Your task to perform on an android device: clear all cookies in the chrome app Image 0: 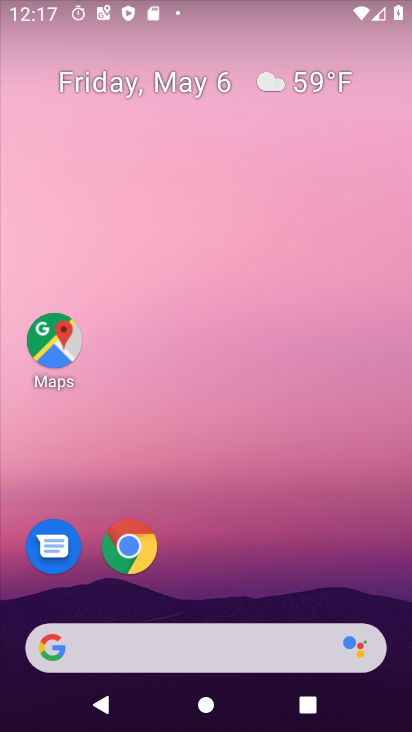
Step 0: click (127, 542)
Your task to perform on an android device: clear all cookies in the chrome app Image 1: 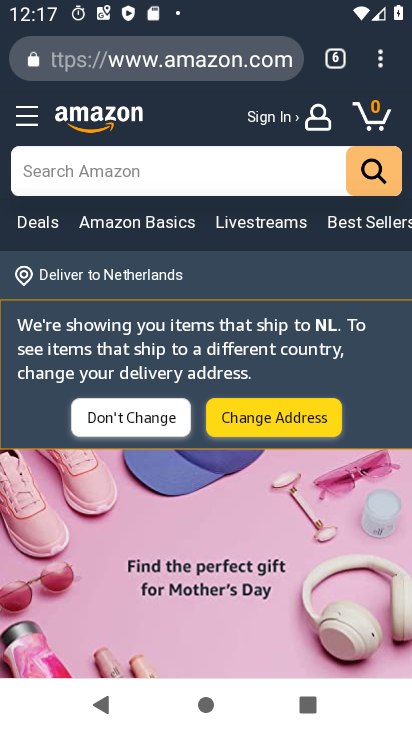
Step 1: click (385, 65)
Your task to perform on an android device: clear all cookies in the chrome app Image 2: 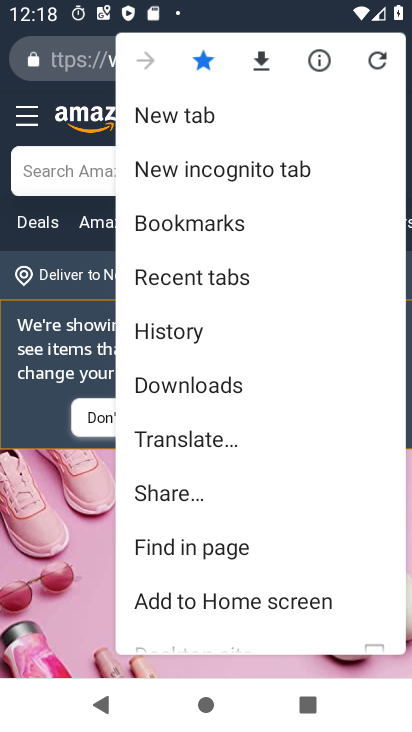
Step 2: click (185, 329)
Your task to perform on an android device: clear all cookies in the chrome app Image 3: 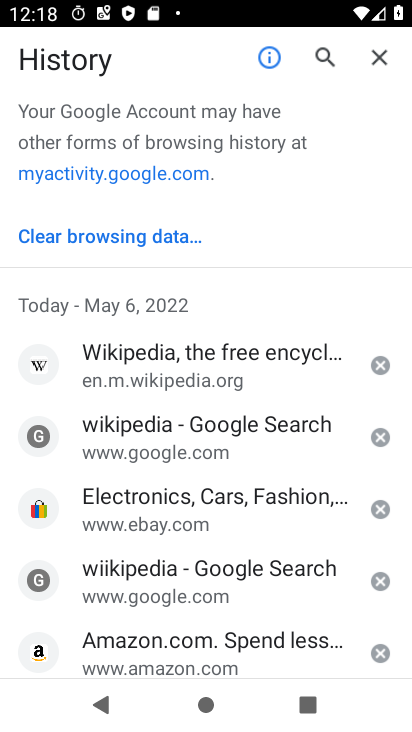
Step 3: click (139, 234)
Your task to perform on an android device: clear all cookies in the chrome app Image 4: 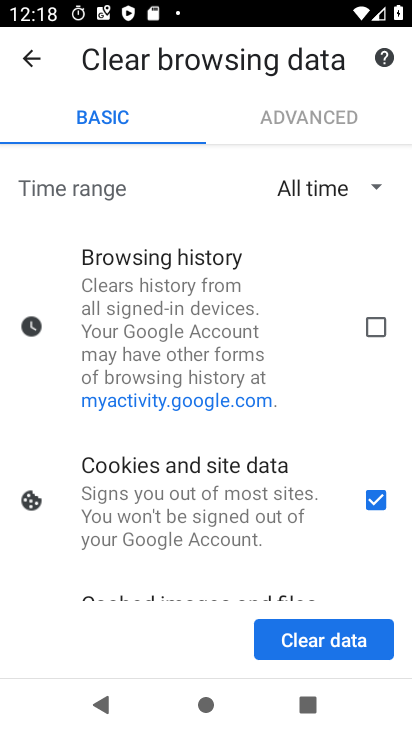
Step 4: drag from (310, 539) to (298, 313)
Your task to perform on an android device: clear all cookies in the chrome app Image 5: 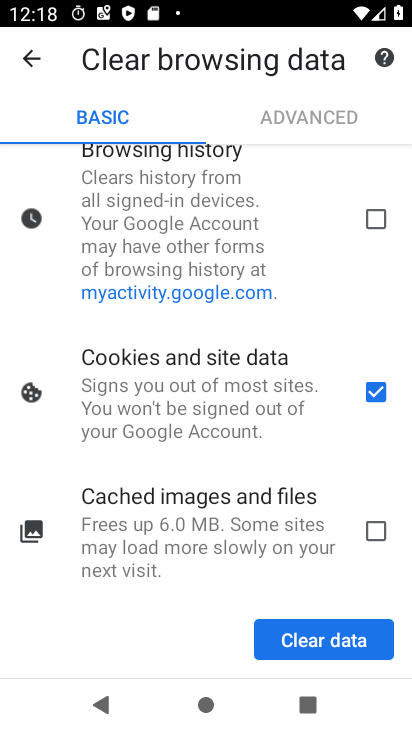
Step 5: click (344, 636)
Your task to perform on an android device: clear all cookies in the chrome app Image 6: 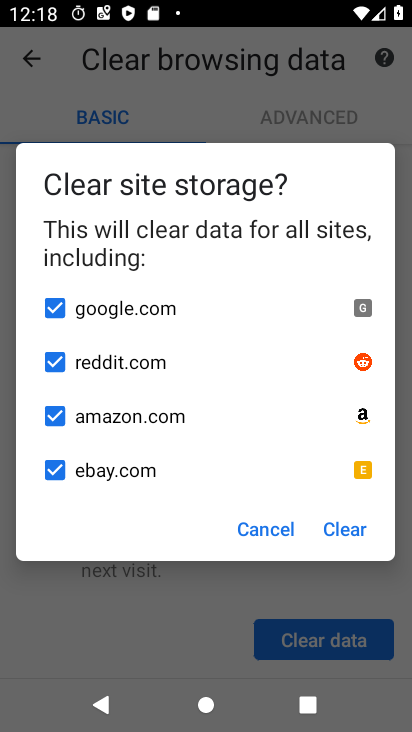
Step 6: click (349, 525)
Your task to perform on an android device: clear all cookies in the chrome app Image 7: 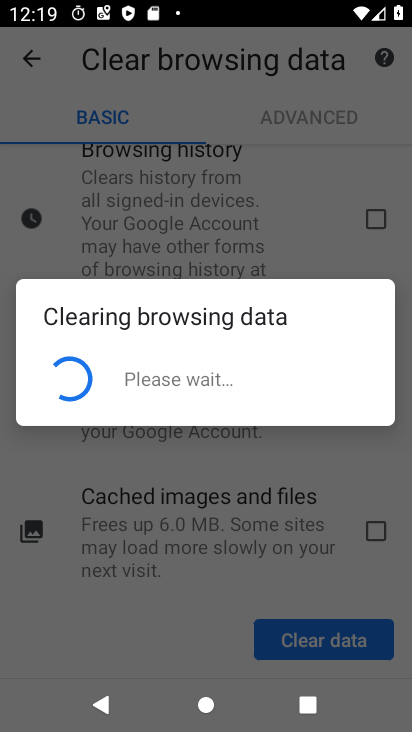
Step 7: task complete